Your task to perform on an android device: When is my next meeting? Image 0: 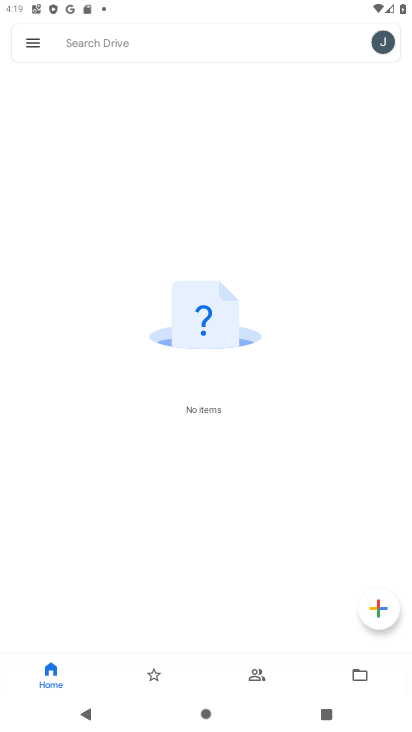
Step 0: press home button
Your task to perform on an android device: When is my next meeting? Image 1: 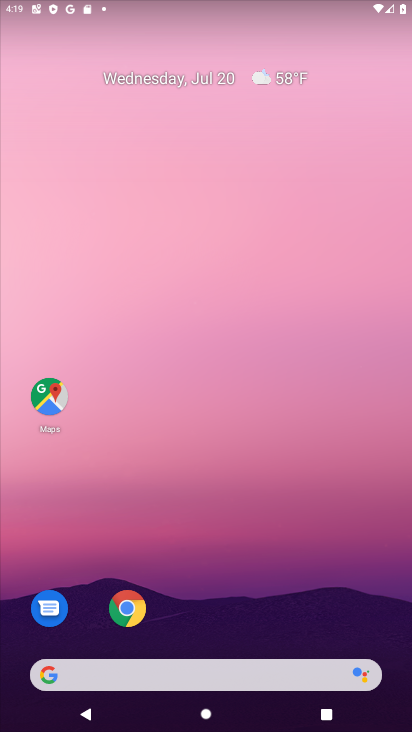
Step 1: drag from (238, 615) to (225, 255)
Your task to perform on an android device: When is my next meeting? Image 2: 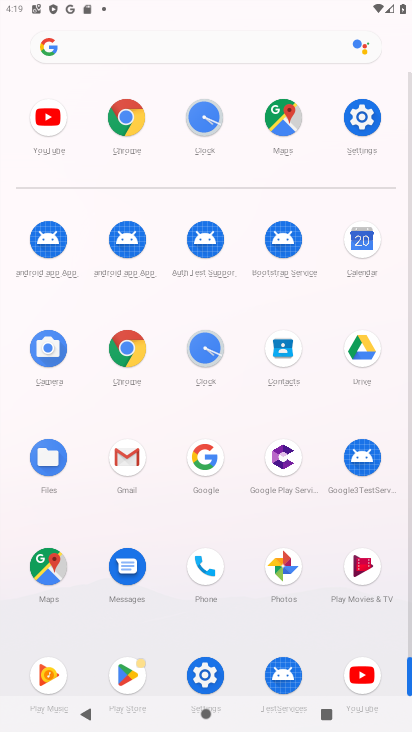
Step 2: click (356, 239)
Your task to perform on an android device: When is my next meeting? Image 3: 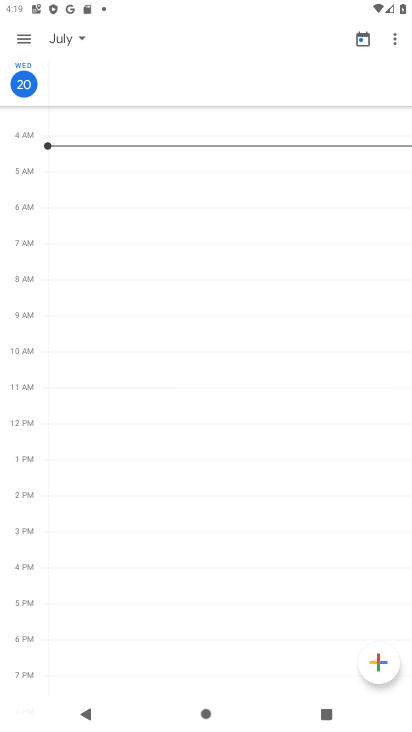
Step 3: click (30, 32)
Your task to perform on an android device: When is my next meeting? Image 4: 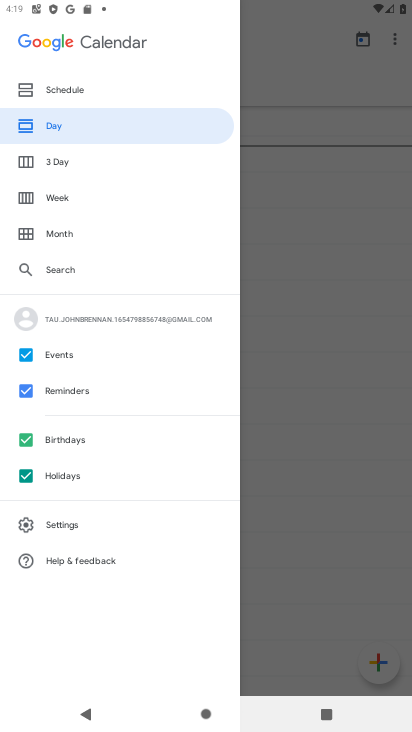
Step 4: click (88, 86)
Your task to perform on an android device: When is my next meeting? Image 5: 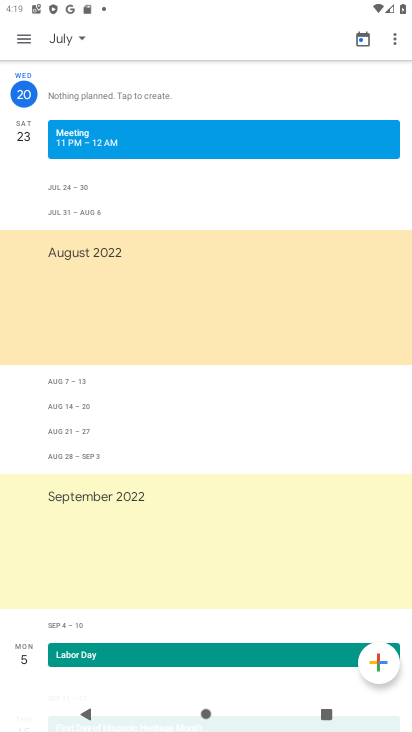
Step 5: task complete